Your task to perform on an android device: turn pop-ups on in chrome Image 0: 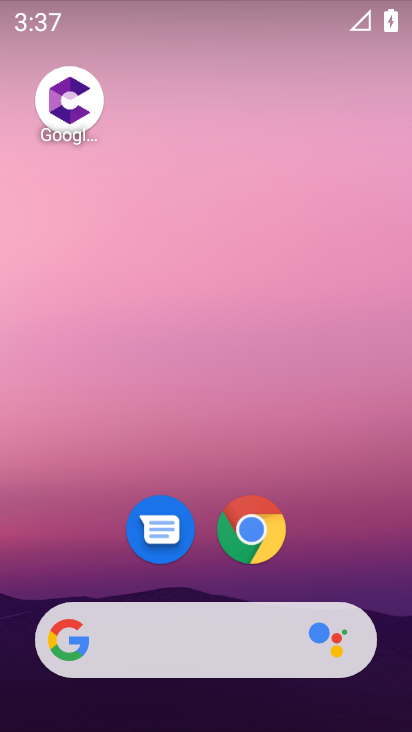
Step 0: drag from (313, 520) to (304, 40)
Your task to perform on an android device: turn pop-ups on in chrome Image 1: 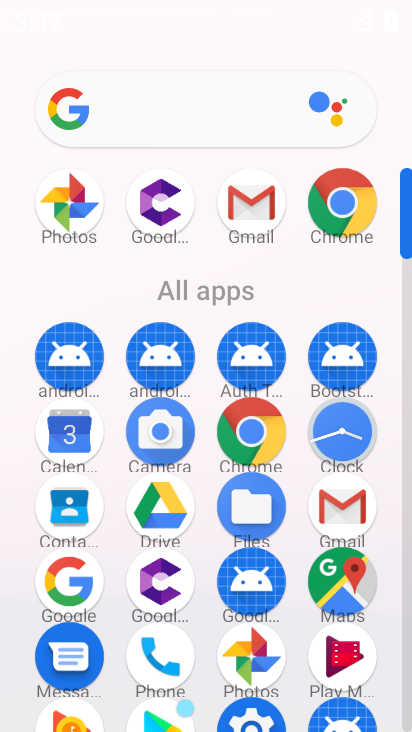
Step 1: click (346, 194)
Your task to perform on an android device: turn pop-ups on in chrome Image 2: 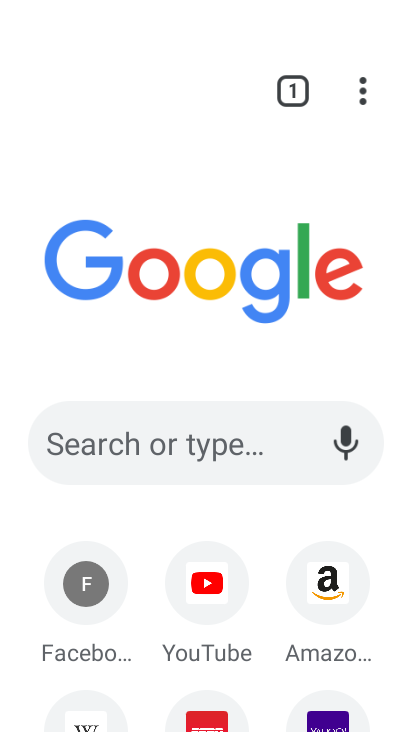
Step 2: drag from (359, 101) to (133, 543)
Your task to perform on an android device: turn pop-ups on in chrome Image 3: 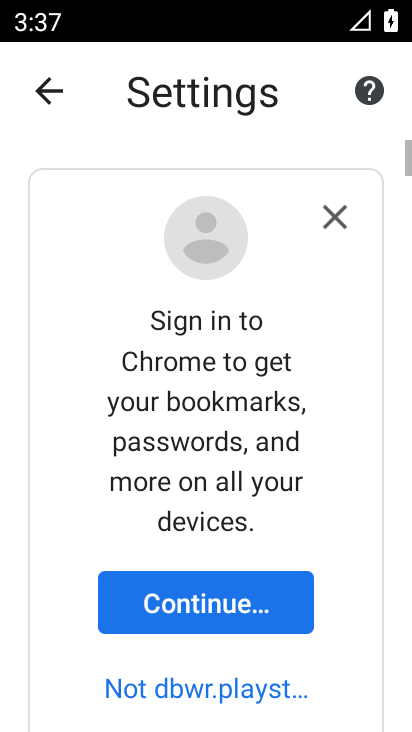
Step 3: drag from (186, 633) to (249, 268)
Your task to perform on an android device: turn pop-ups on in chrome Image 4: 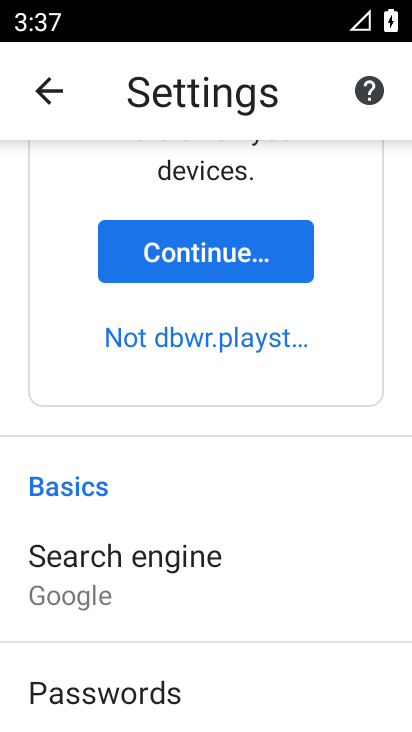
Step 4: drag from (303, 593) to (368, 246)
Your task to perform on an android device: turn pop-ups on in chrome Image 5: 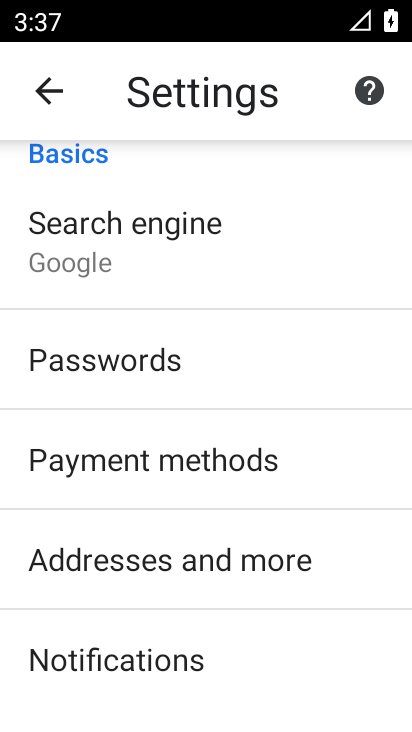
Step 5: drag from (266, 583) to (335, 185)
Your task to perform on an android device: turn pop-ups on in chrome Image 6: 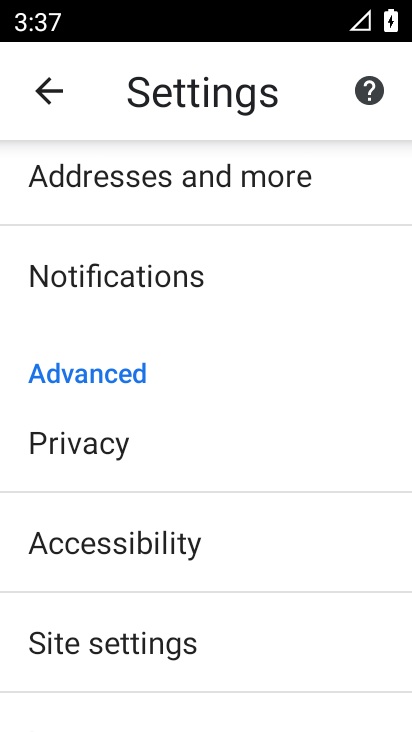
Step 6: drag from (276, 394) to (295, 191)
Your task to perform on an android device: turn pop-ups on in chrome Image 7: 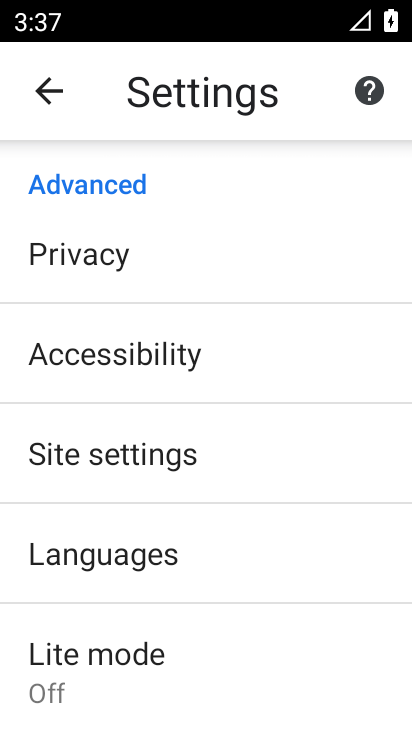
Step 7: click (162, 472)
Your task to perform on an android device: turn pop-ups on in chrome Image 8: 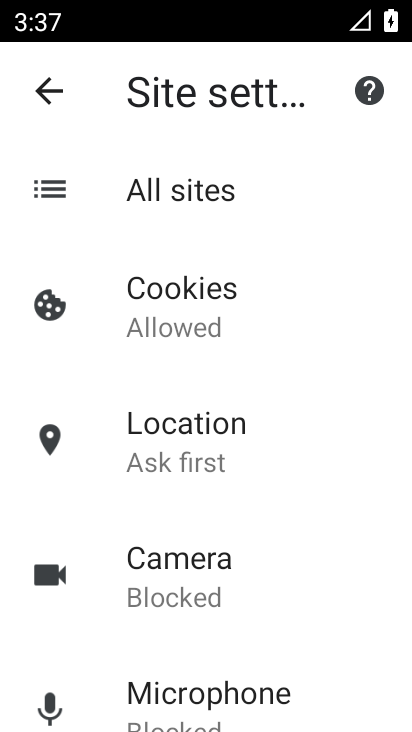
Step 8: drag from (214, 633) to (294, 257)
Your task to perform on an android device: turn pop-ups on in chrome Image 9: 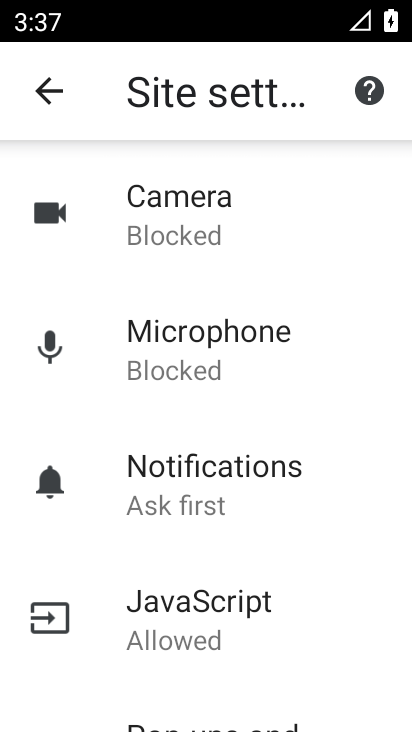
Step 9: drag from (216, 646) to (212, 229)
Your task to perform on an android device: turn pop-ups on in chrome Image 10: 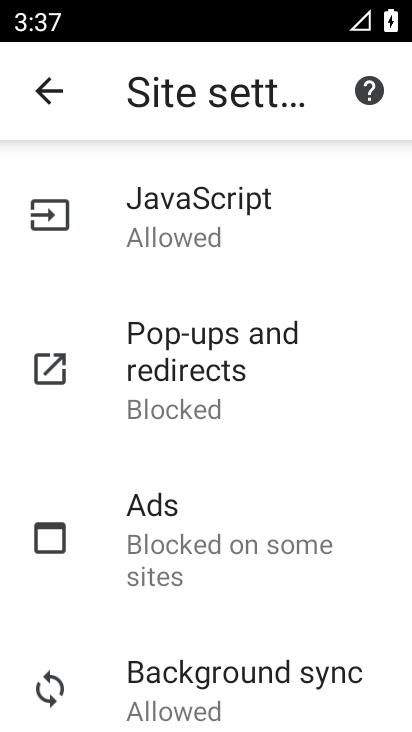
Step 10: click (196, 358)
Your task to perform on an android device: turn pop-ups on in chrome Image 11: 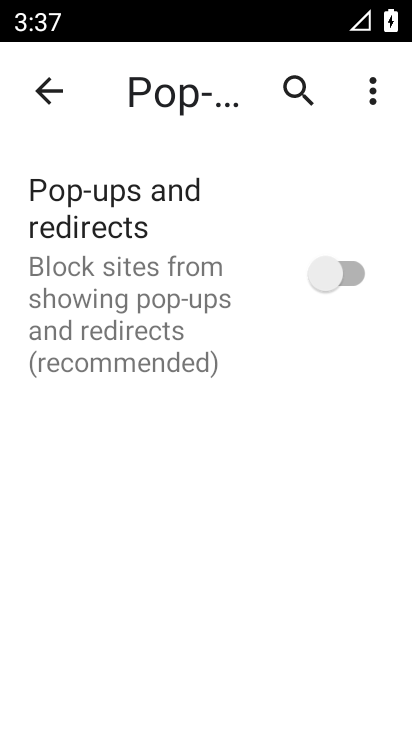
Step 11: click (338, 294)
Your task to perform on an android device: turn pop-ups on in chrome Image 12: 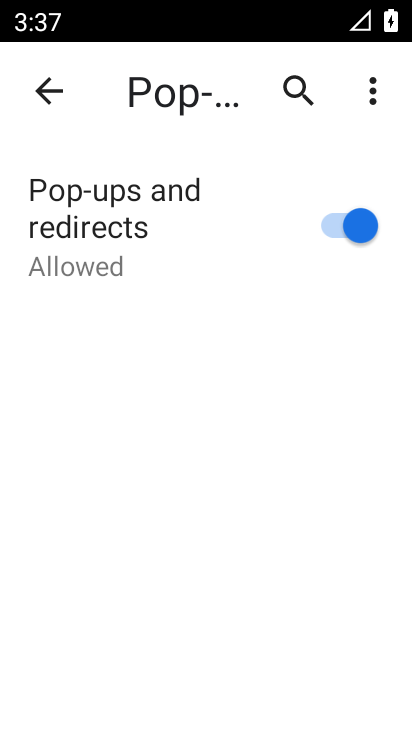
Step 12: task complete